Your task to perform on an android device: Is it going to rain tomorrow? Image 0: 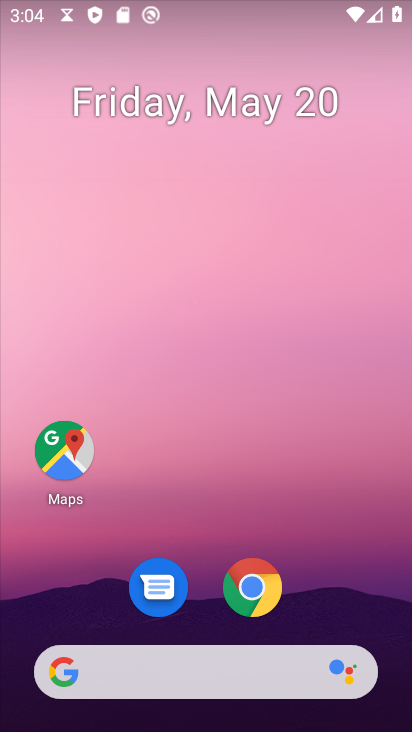
Step 0: click (218, 658)
Your task to perform on an android device: Is it going to rain tomorrow? Image 1: 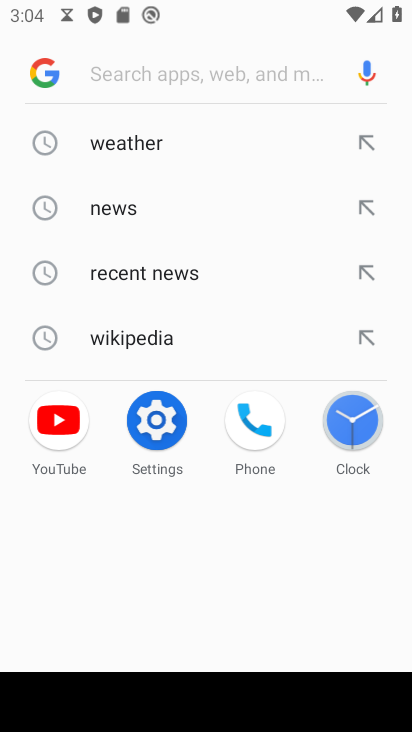
Step 1: type "Is it going to rain tomorrow?"
Your task to perform on an android device: Is it going to rain tomorrow? Image 2: 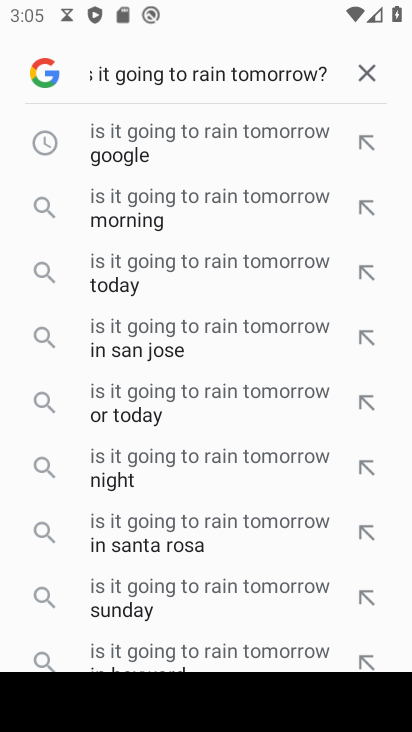
Step 2: click (261, 143)
Your task to perform on an android device: Is it going to rain tomorrow? Image 3: 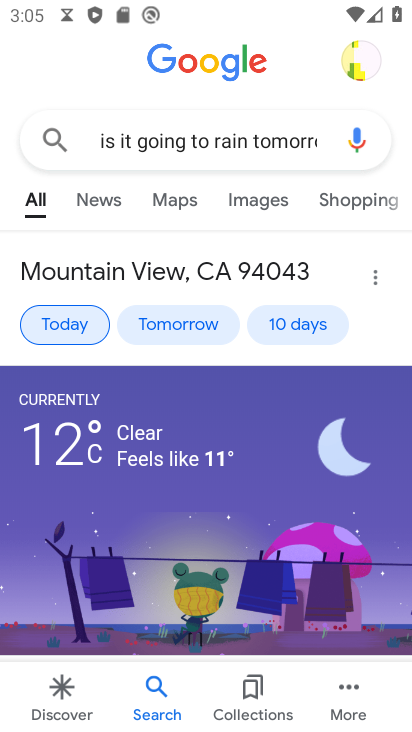
Step 3: task complete